Your task to perform on an android device: change your default location settings in chrome Image 0: 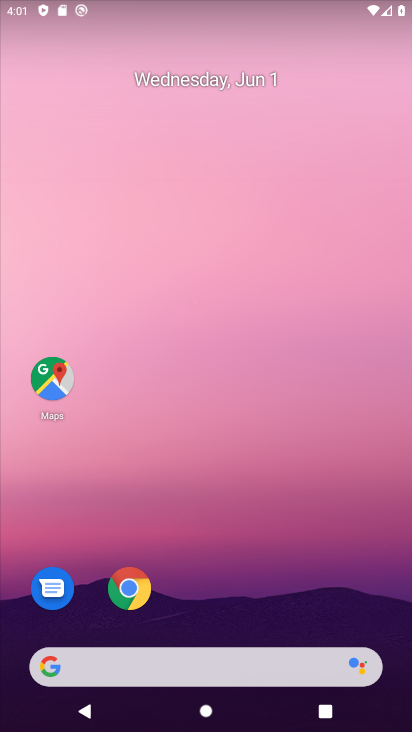
Step 0: click (131, 590)
Your task to perform on an android device: change your default location settings in chrome Image 1: 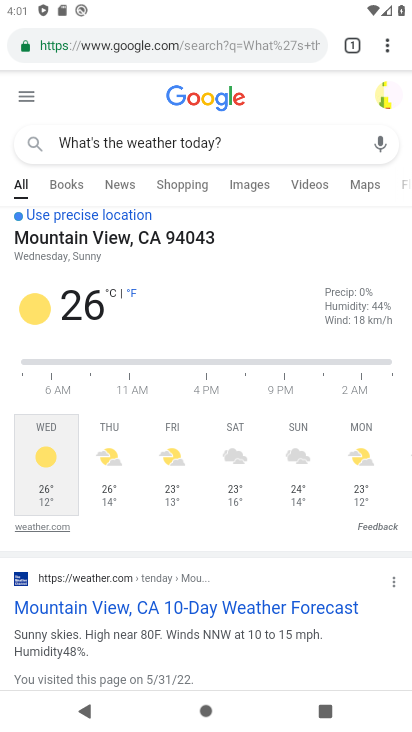
Step 1: click (386, 53)
Your task to perform on an android device: change your default location settings in chrome Image 2: 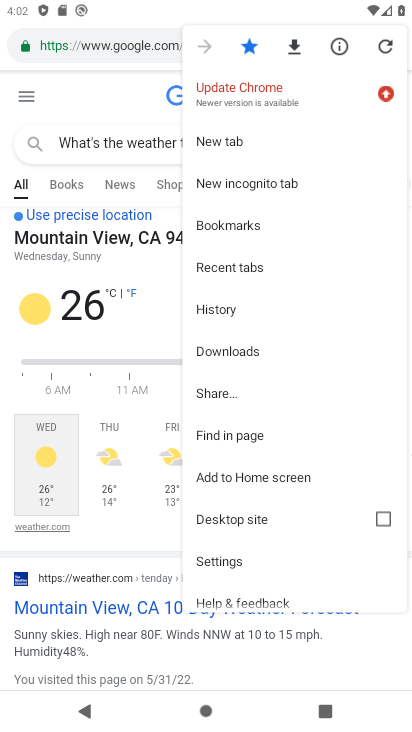
Step 2: click (252, 561)
Your task to perform on an android device: change your default location settings in chrome Image 3: 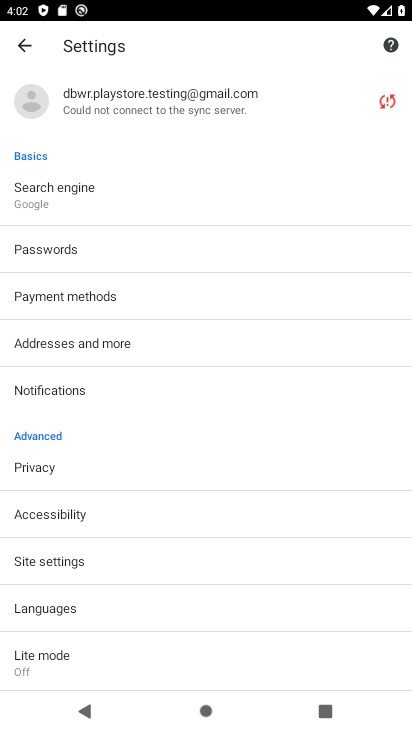
Step 3: click (217, 561)
Your task to perform on an android device: change your default location settings in chrome Image 4: 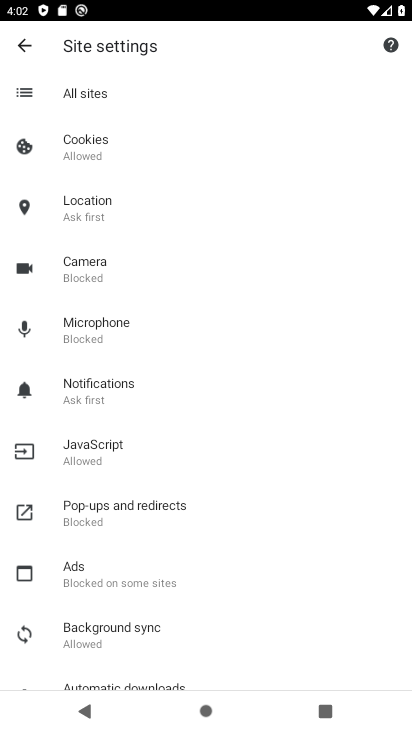
Step 4: click (189, 210)
Your task to perform on an android device: change your default location settings in chrome Image 5: 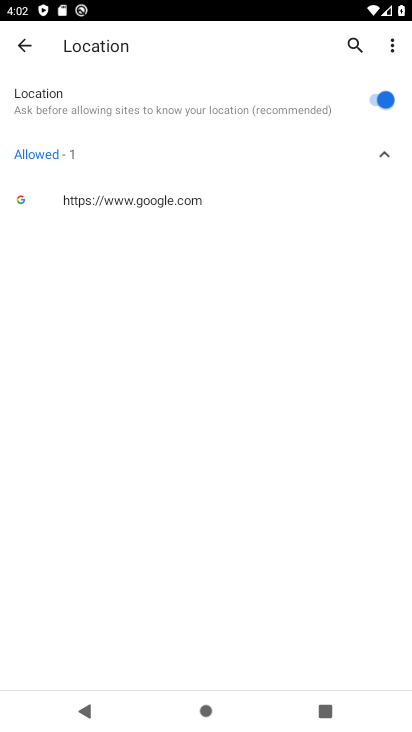
Step 5: task complete